Your task to perform on an android device: Go to Yahoo.com Image 0: 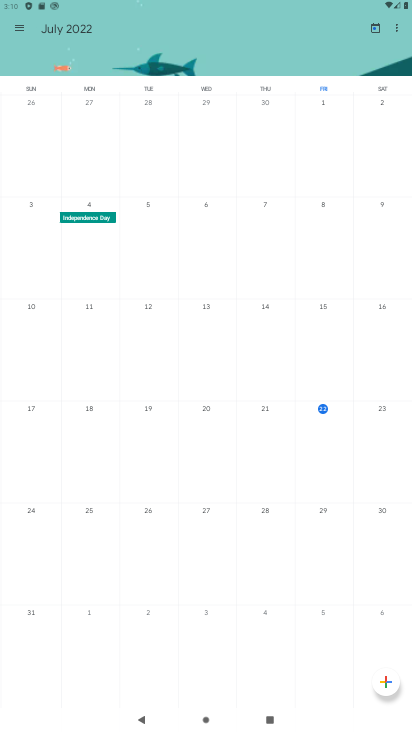
Step 0: press home button
Your task to perform on an android device: Go to Yahoo.com Image 1: 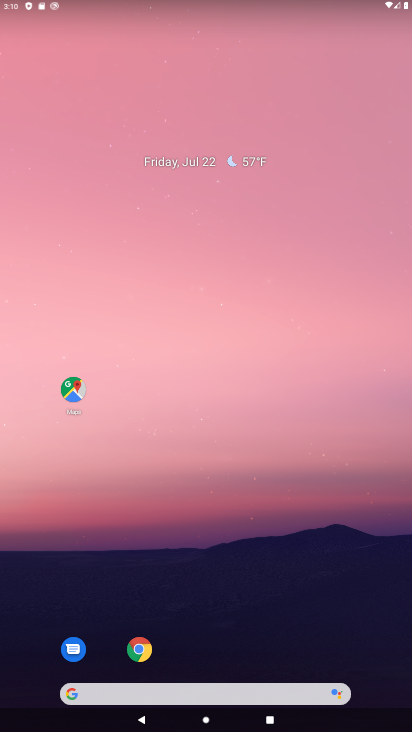
Step 1: click (118, 677)
Your task to perform on an android device: Go to Yahoo.com Image 2: 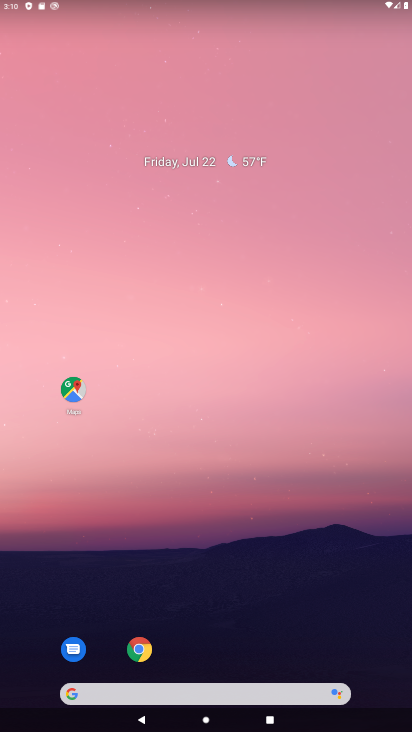
Step 2: click (117, 694)
Your task to perform on an android device: Go to Yahoo.com Image 3: 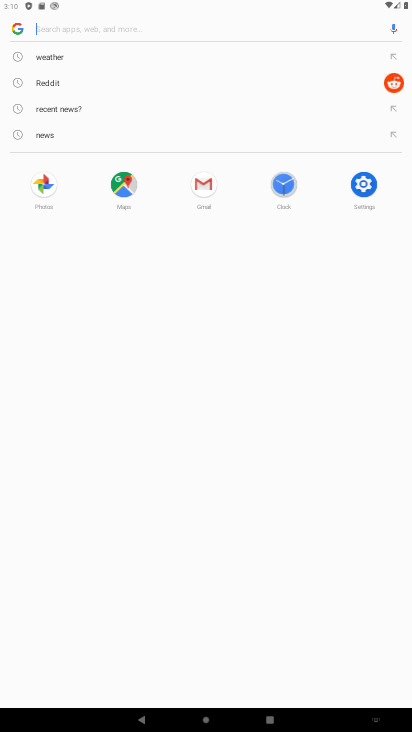
Step 3: type "Yahoo.com"
Your task to perform on an android device: Go to Yahoo.com Image 4: 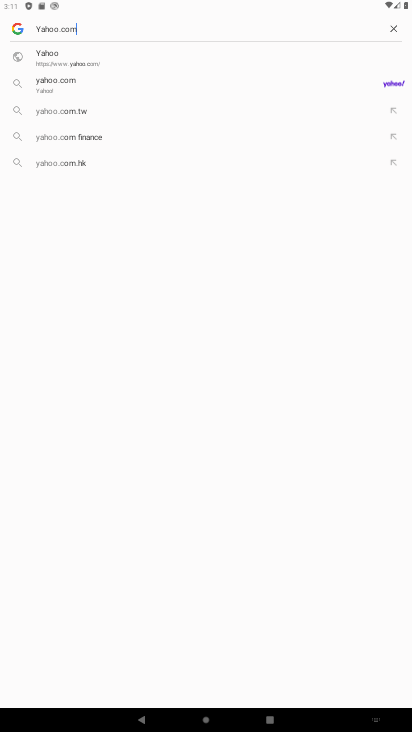
Step 4: type ""
Your task to perform on an android device: Go to Yahoo.com Image 5: 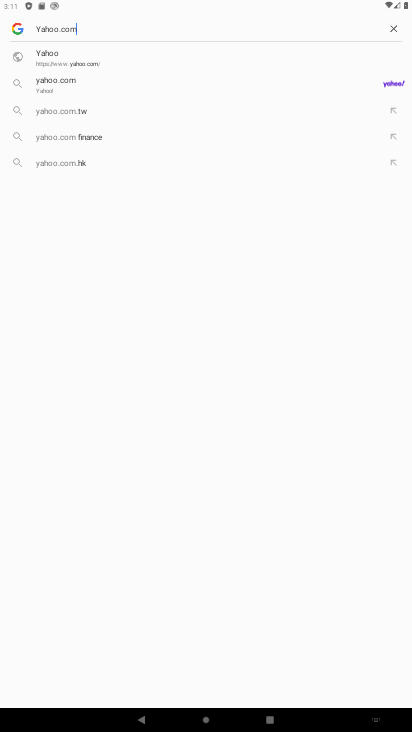
Step 5: type ""
Your task to perform on an android device: Go to Yahoo.com Image 6: 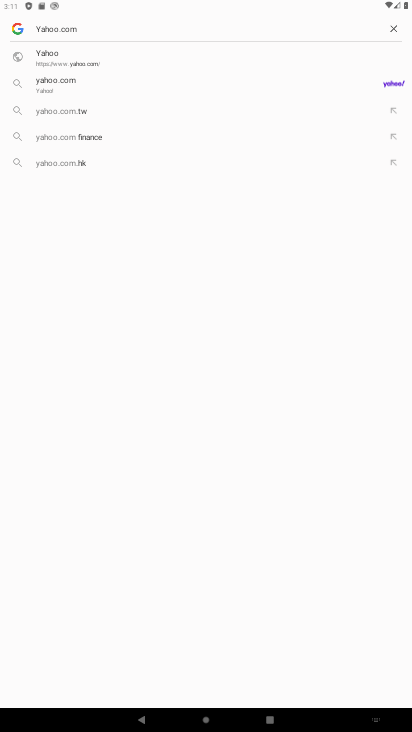
Step 6: type ""
Your task to perform on an android device: Go to Yahoo.com Image 7: 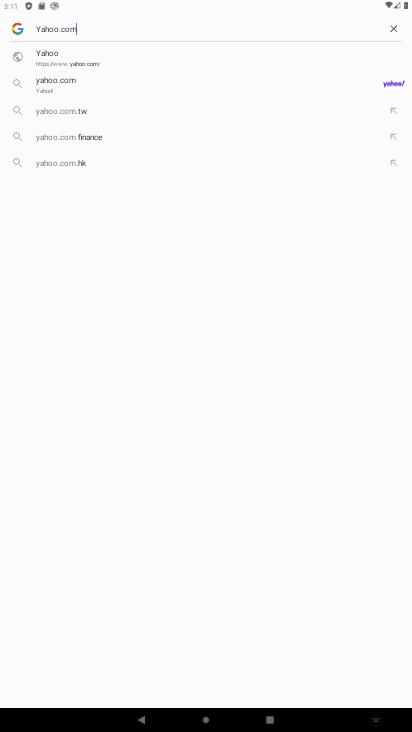
Step 7: task complete